Your task to perform on an android device: Open sound settings Image 0: 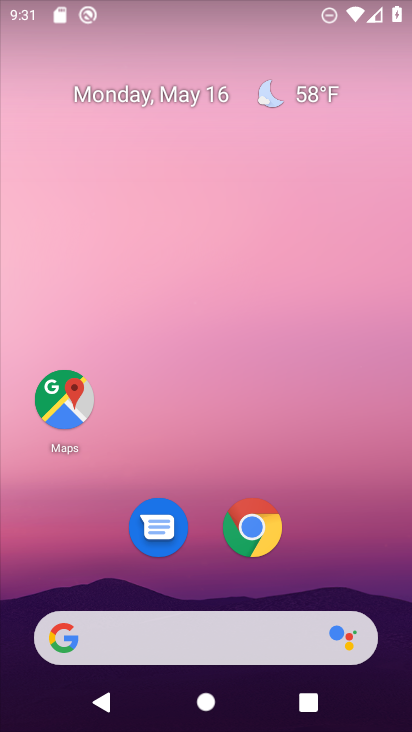
Step 0: drag from (391, 634) to (357, 249)
Your task to perform on an android device: Open sound settings Image 1: 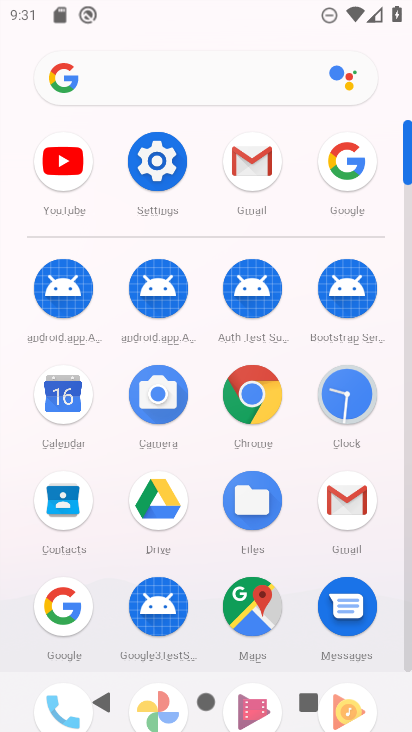
Step 1: click (48, 604)
Your task to perform on an android device: Open sound settings Image 2: 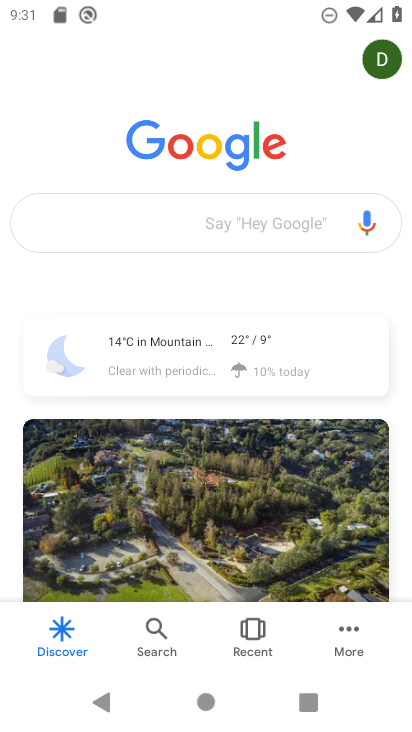
Step 2: drag from (246, 530) to (245, 303)
Your task to perform on an android device: Open sound settings Image 3: 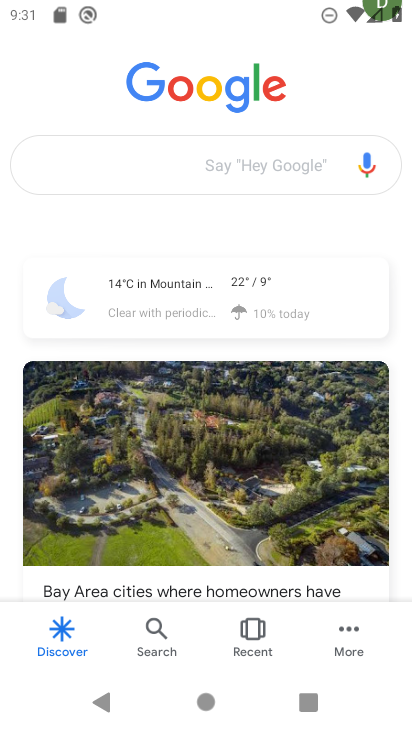
Step 3: press back button
Your task to perform on an android device: Open sound settings Image 4: 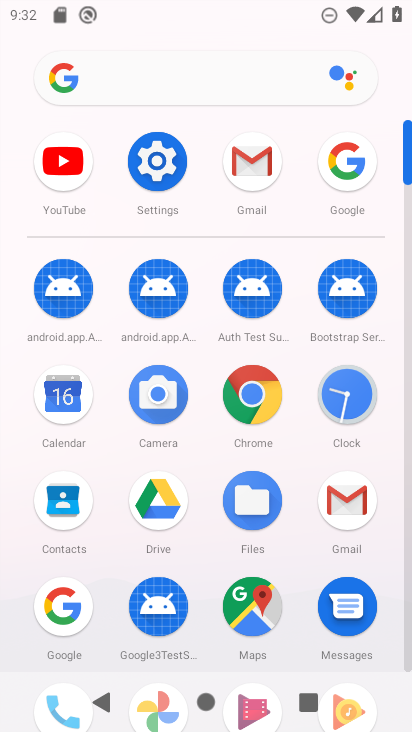
Step 4: click (171, 146)
Your task to perform on an android device: Open sound settings Image 5: 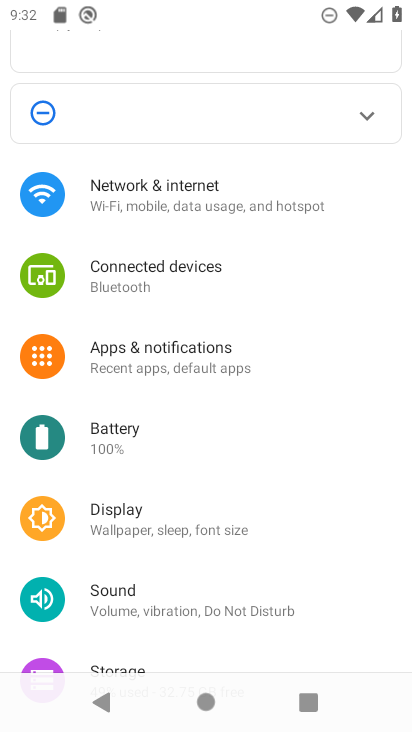
Step 5: click (110, 590)
Your task to perform on an android device: Open sound settings Image 6: 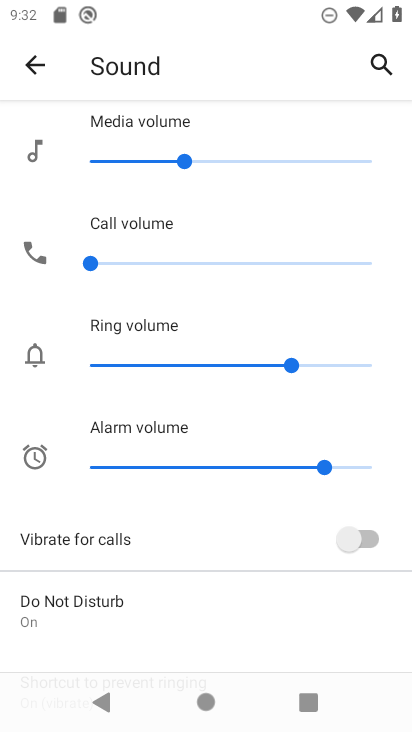
Step 6: task complete